Your task to perform on an android device: toggle sleep mode Image 0: 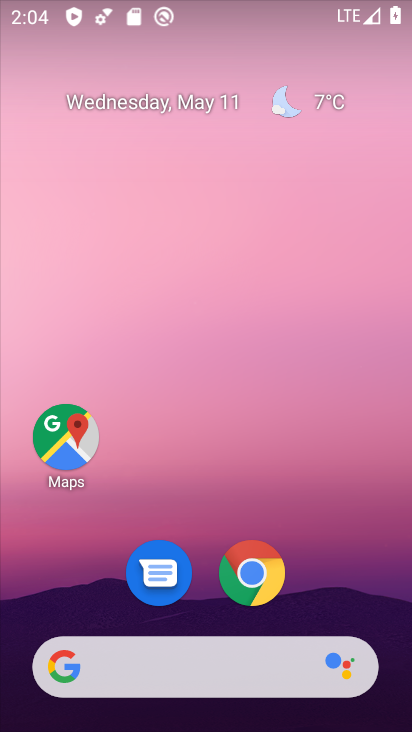
Step 0: drag from (87, 627) to (220, 127)
Your task to perform on an android device: toggle sleep mode Image 1: 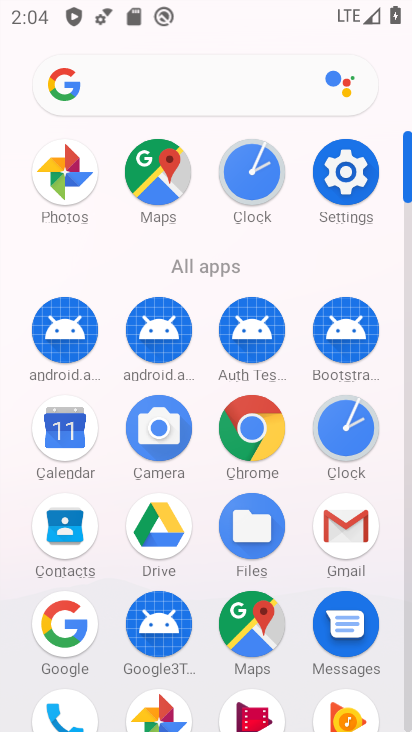
Step 1: drag from (165, 652) to (250, 330)
Your task to perform on an android device: toggle sleep mode Image 2: 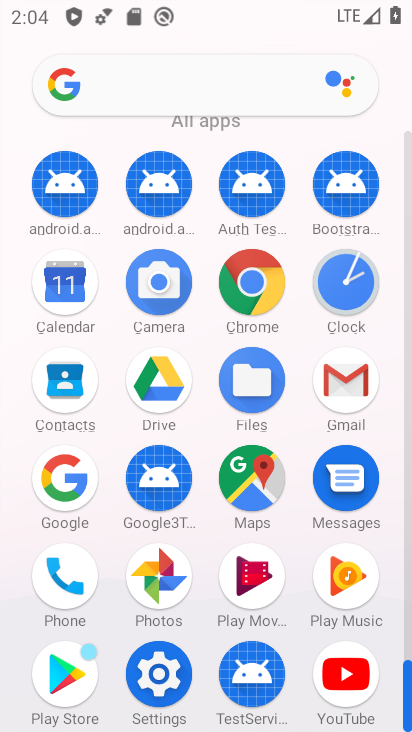
Step 2: click (161, 688)
Your task to perform on an android device: toggle sleep mode Image 3: 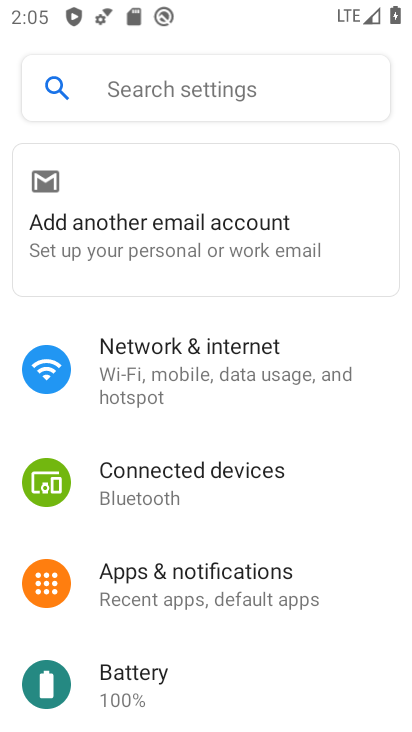
Step 3: drag from (201, 690) to (331, 242)
Your task to perform on an android device: toggle sleep mode Image 4: 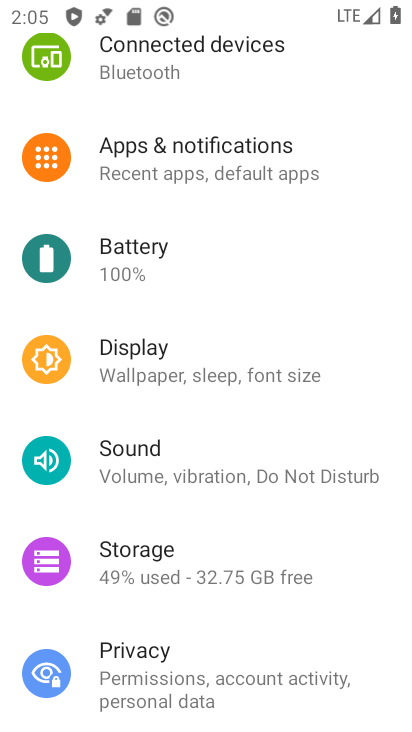
Step 4: click (196, 371)
Your task to perform on an android device: toggle sleep mode Image 5: 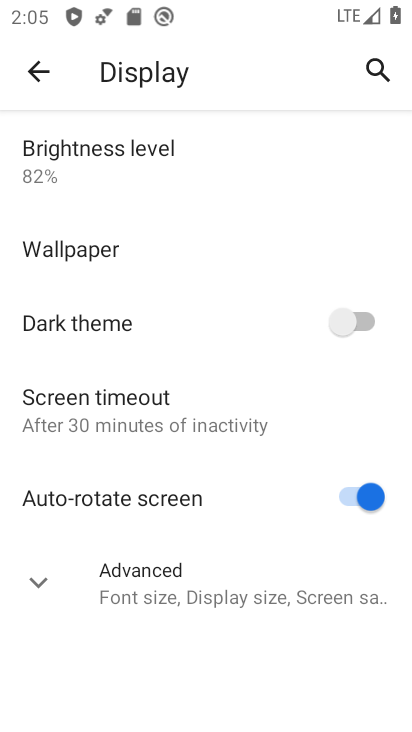
Step 5: click (179, 598)
Your task to perform on an android device: toggle sleep mode Image 6: 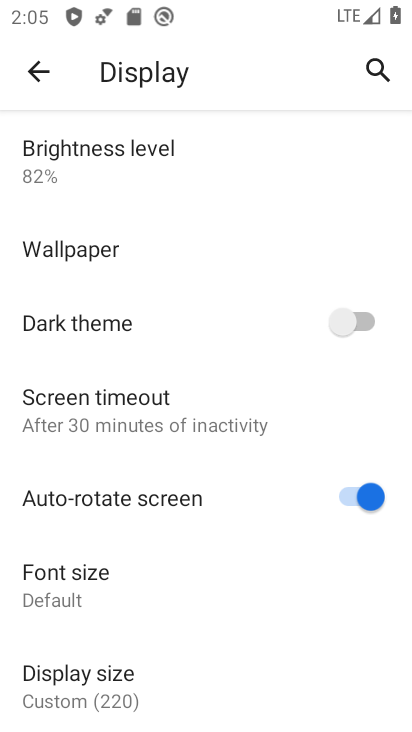
Step 6: task complete